Your task to perform on an android device: change notifications settings Image 0: 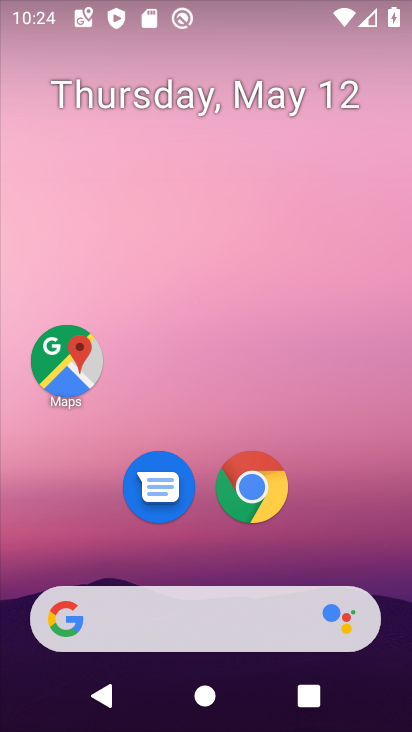
Step 0: press home button
Your task to perform on an android device: change notifications settings Image 1: 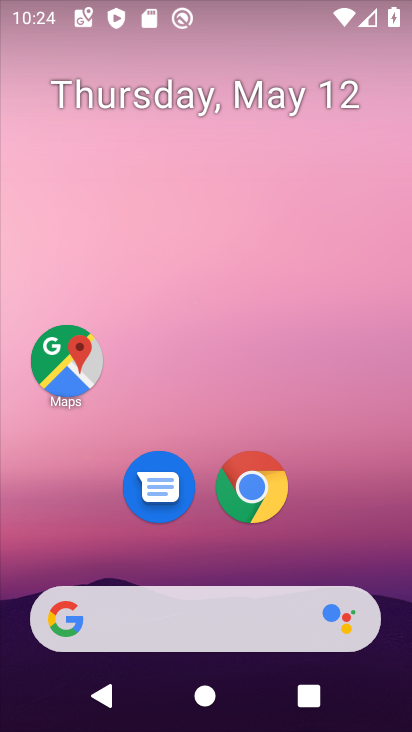
Step 1: drag from (22, 692) to (407, 158)
Your task to perform on an android device: change notifications settings Image 2: 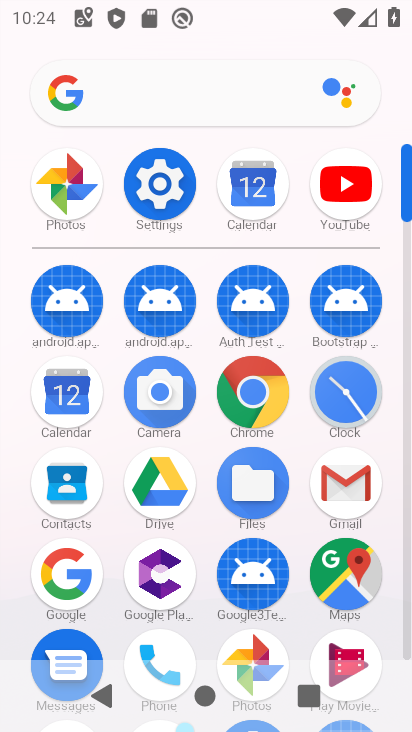
Step 2: click (159, 181)
Your task to perform on an android device: change notifications settings Image 3: 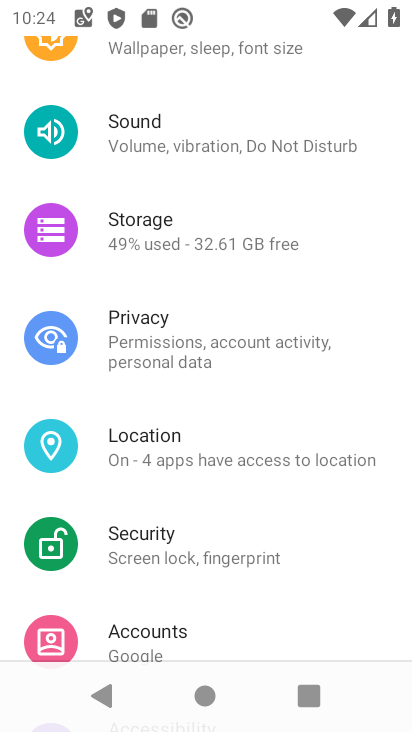
Step 3: drag from (243, 114) to (233, 512)
Your task to perform on an android device: change notifications settings Image 4: 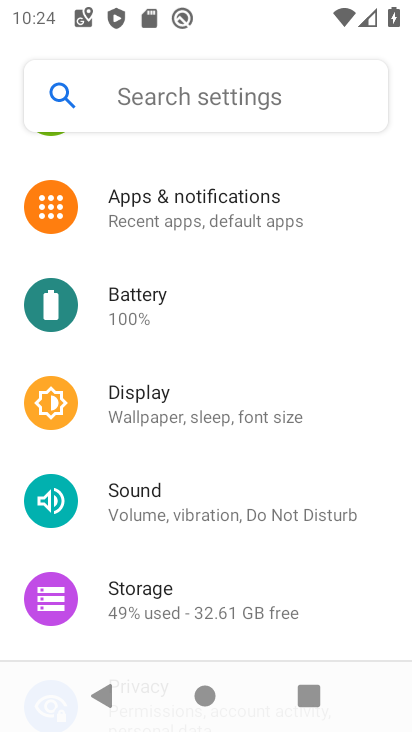
Step 4: click (285, 224)
Your task to perform on an android device: change notifications settings Image 5: 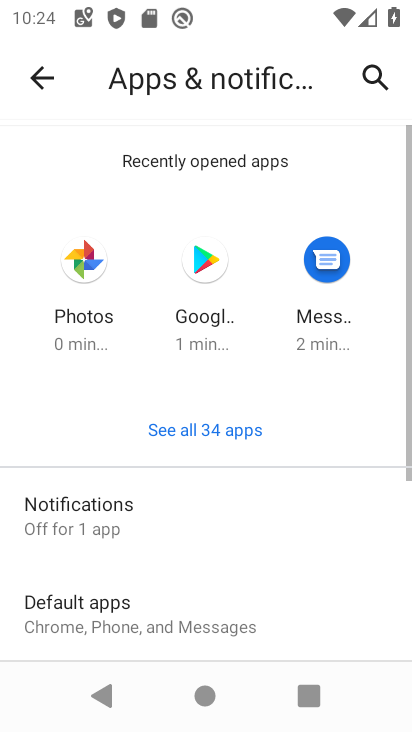
Step 5: click (168, 502)
Your task to perform on an android device: change notifications settings Image 6: 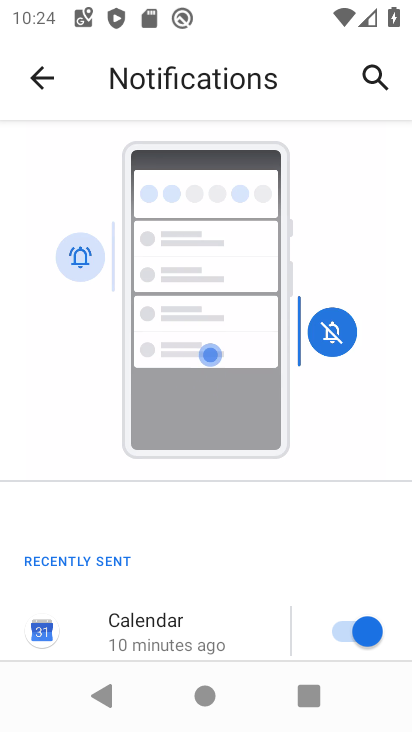
Step 6: click (354, 627)
Your task to perform on an android device: change notifications settings Image 7: 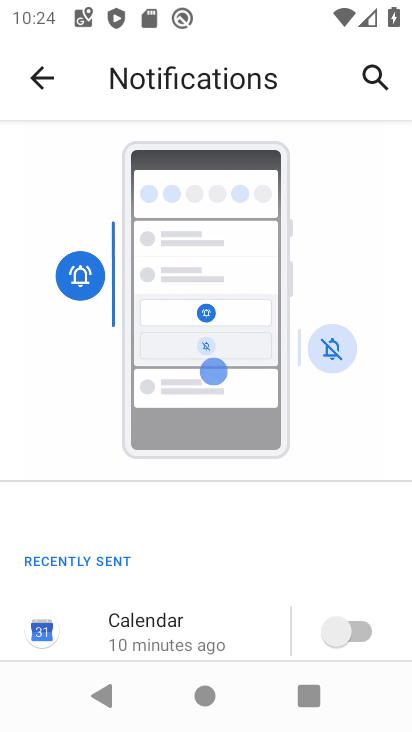
Step 7: task complete